Your task to perform on an android device: Go to wifi settings Image 0: 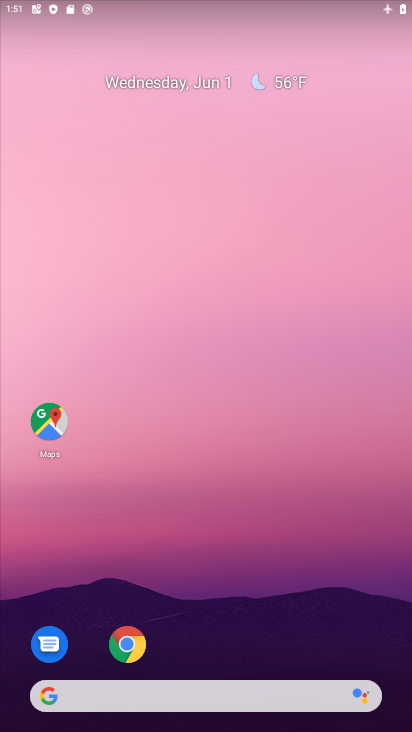
Step 0: drag from (325, 518) to (123, 9)
Your task to perform on an android device: Go to wifi settings Image 1: 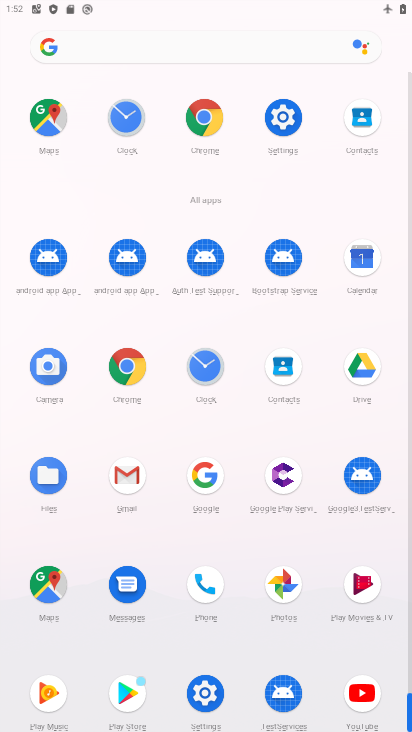
Step 1: click (288, 115)
Your task to perform on an android device: Go to wifi settings Image 2: 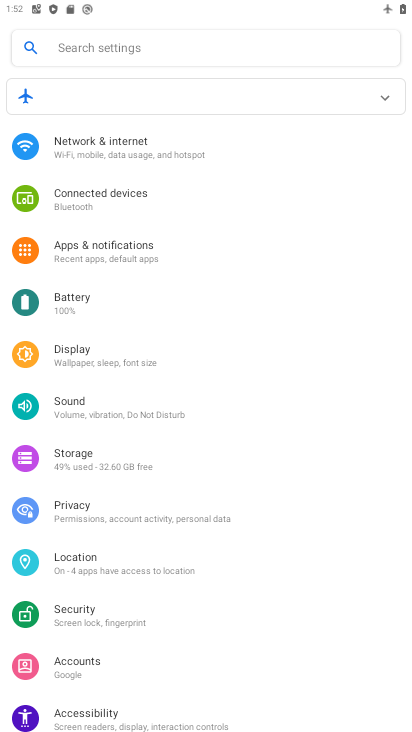
Step 2: click (169, 152)
Your task to perform on an android device: Go to wifi settings Image 3: 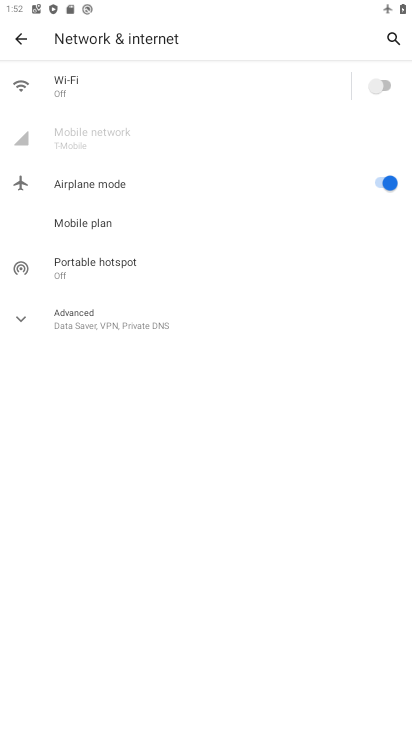
Step 3: click (27, 316)
Your task to perform on an android device: Go to wifi settings Image 4: 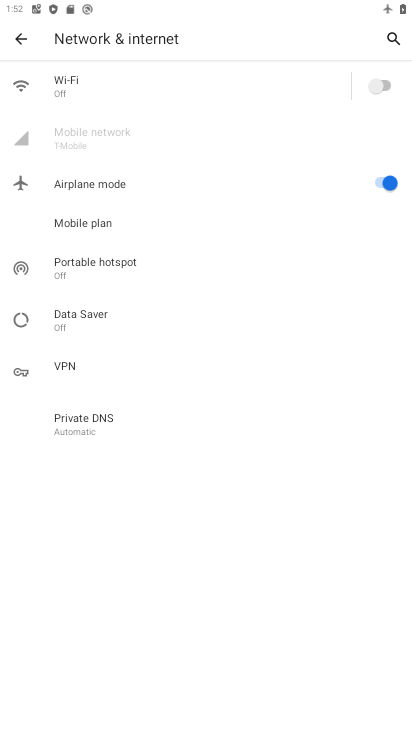
Step 4: click (108, 85)
Your task to perform on an android device: Go to wifi settings Image 5: 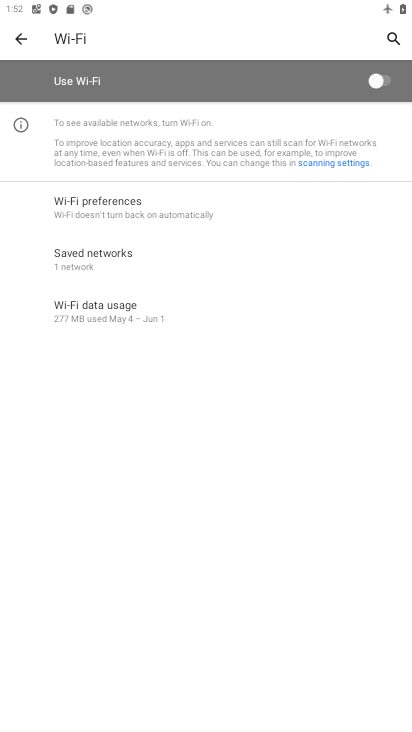
Step 5: task complete